Your task to perform on an android device: visit the assistant section in the google photos Image 0: 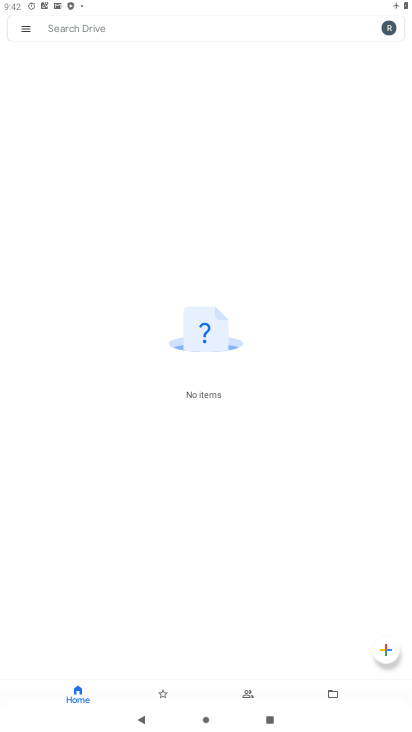
Step 0: drag from (189, 602) to (172, 300)
Your task to perform on an android device: visit the assistant section in the google photos Image 1: 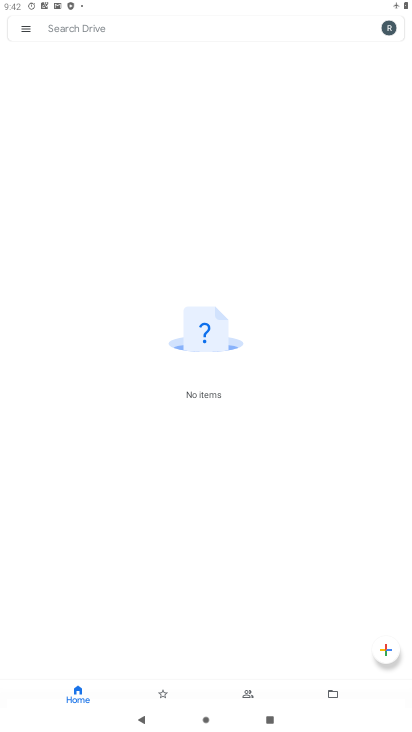
Step 1: press home button
Your task to perform on an android device: visit the assistant section in the google photos Image 2: 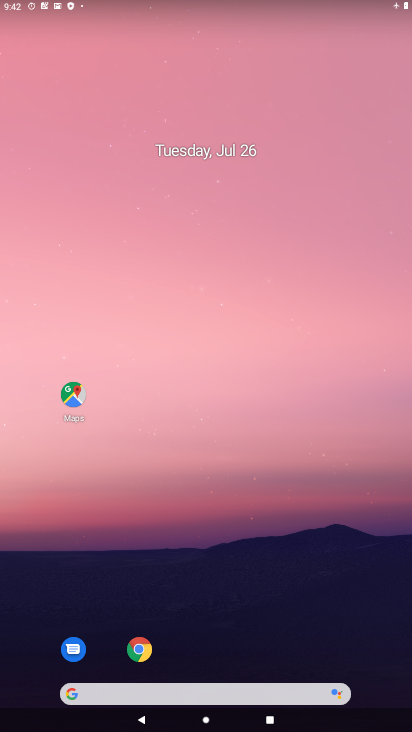
Step 2: drag from (200, 652) to (228, 197)
Your task to perform on an android device: visit the assistant section in the google photos Image 3: 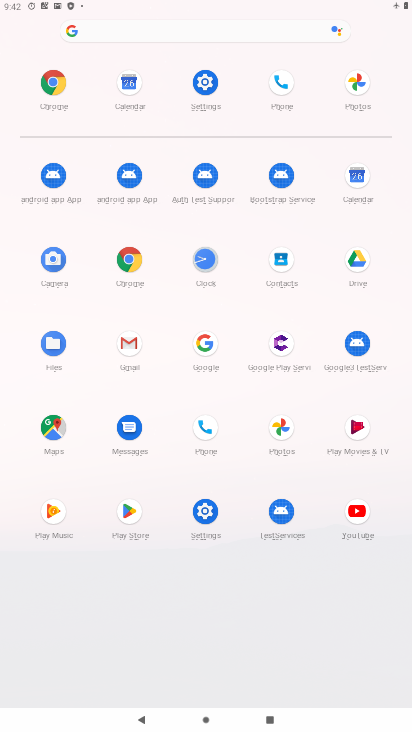
Step 3: click (284, 429)
Your task to perform on an android device: visit the assistant section in the google photos Image 4: 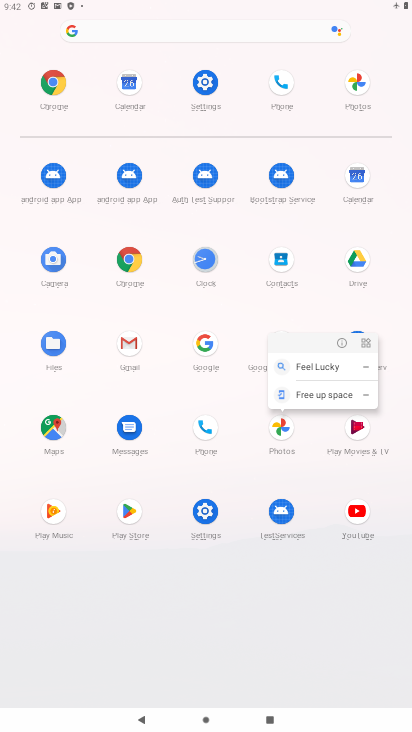
Step 4: click (341, 339)
Your task to perform on an android device: visit the assistant section in the google photos Image 5: 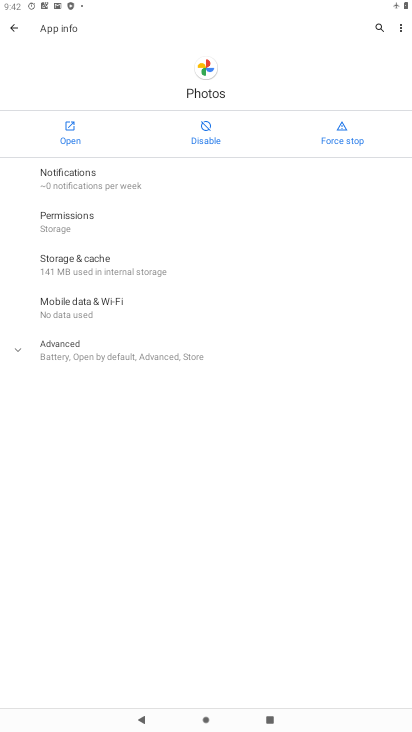
Step 5: click (61, 135)
Your task to perform on an android device: visit the assistant section in the google photos Image 6: 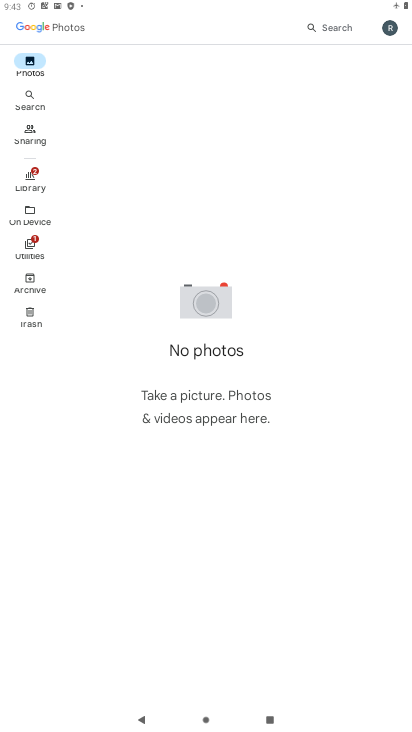
Step 6: task complete